Your task to perform on an android device: Open display settings Image 0: 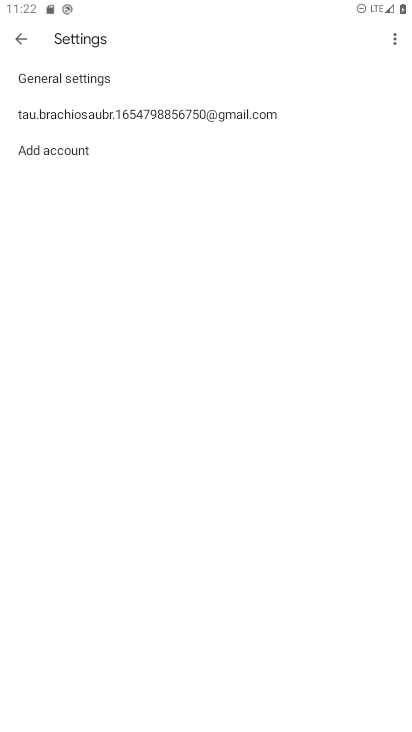
Step 0: press home button
Your task to perform on an android device: Open display settings Image 1: 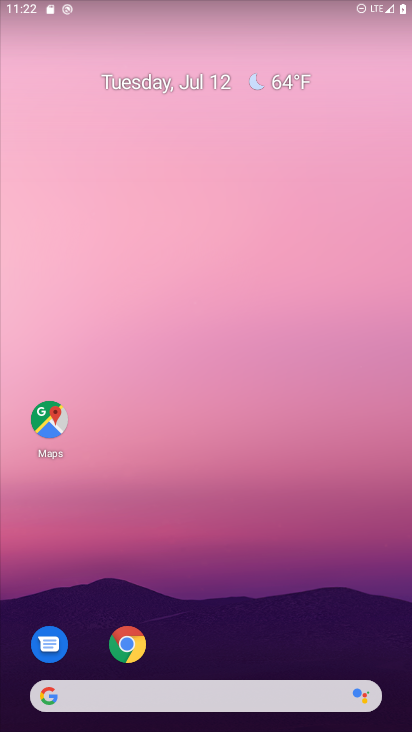
Step 1: drag from (258, 629) to (264, 136)
Your task to perform on an android device: Open display settings Image 2: 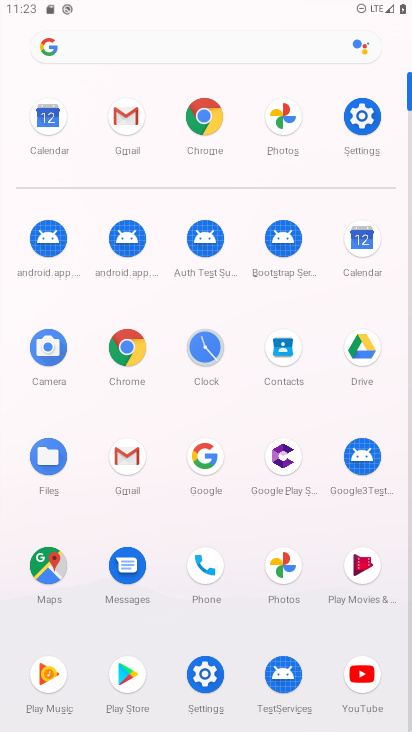
Step 2: click (351, 118)
Your task to perform on an android device: Open display settings Image 3: 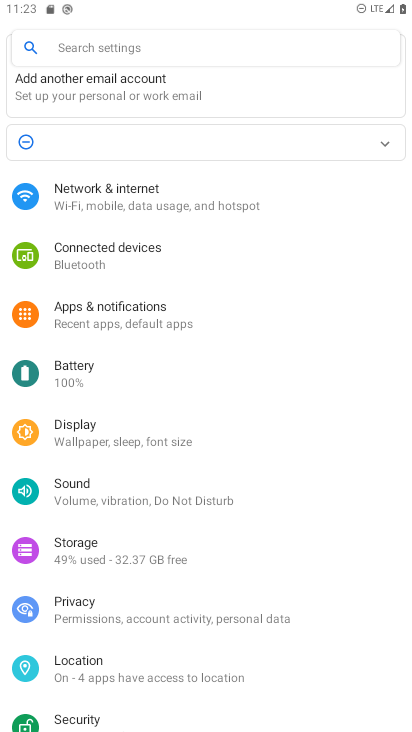
Step 3: click (139, 439)
Your task to perform on an android device: Open display settings Image 4: 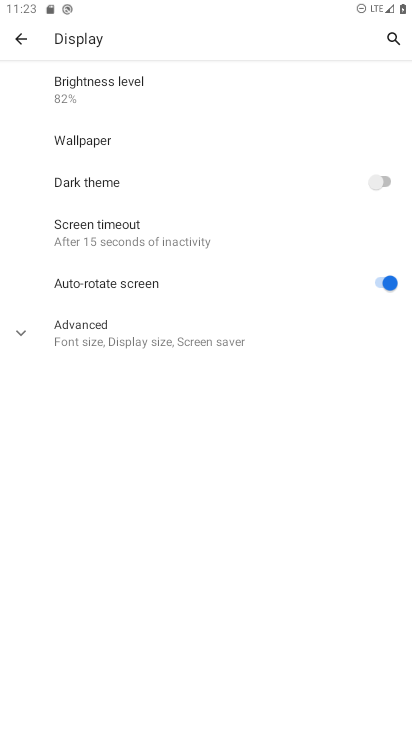
Step 4: task complete